Your task to perform on an android device: delete the emails in spam in the gmail app Image 0: 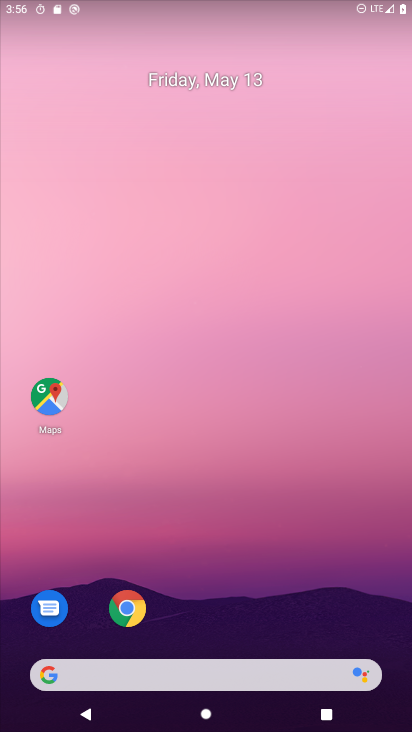
Step 0: drag from (253, 619) to (228, 160)
Your task to perform on an android device: delete the emails in spam in the gmail app Image 1: 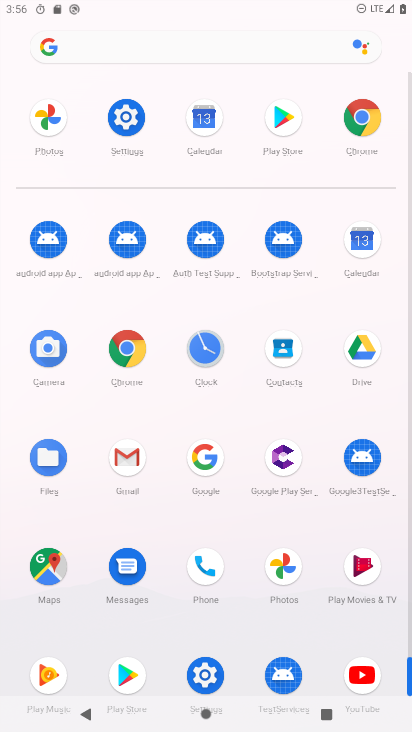
Step 1: click (129, 457)
Your task to perform on an android device: delete the emails in spam in the gmail app Image 2: 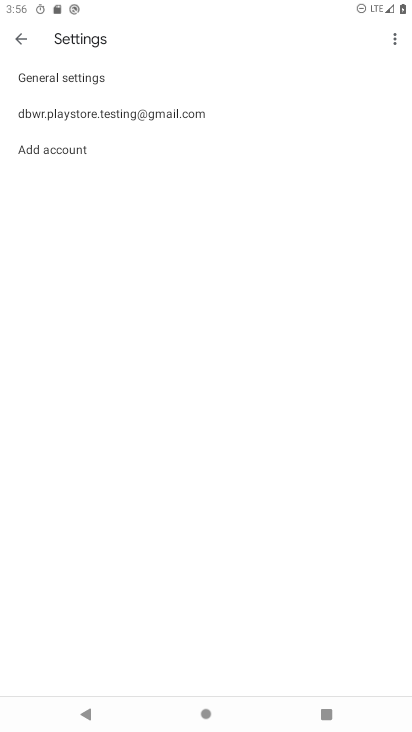
Step 2: click (13, 37)
Your task to perform on an android device: delete the emails in spam in the gmail app Image 3: 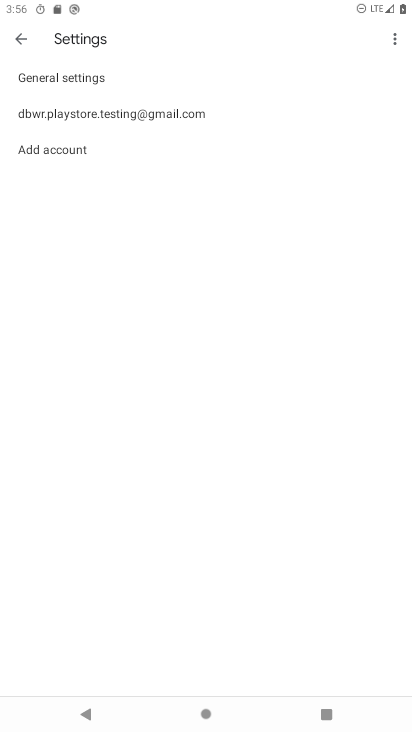
Step 3: click (19, 37)
Your task to perform on an android device: delete the emails in spam in the gmail app Image 4: 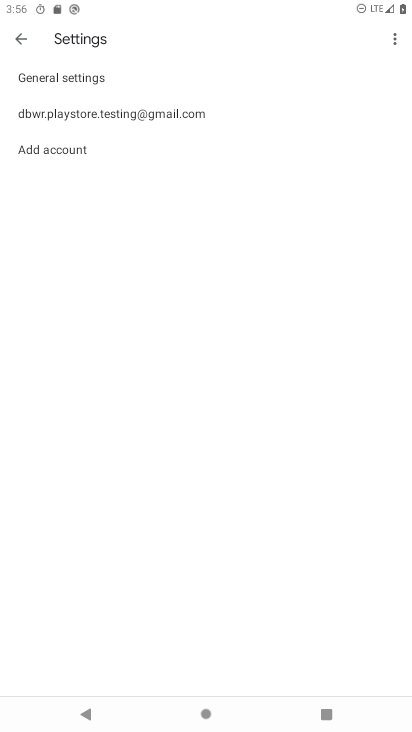
Step 4: press back button
Your task to perform on an android device: delete the emails in spam in the gmail app Image 5: 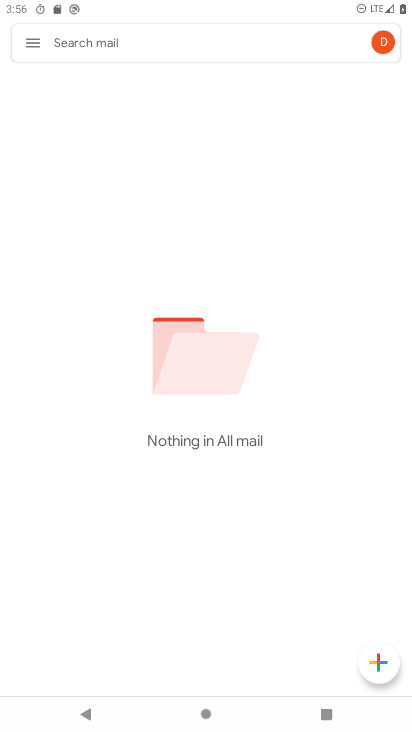
Step 5: click (38, 45)
Your task to perform on an android device: delete the emails in spam in the gmail app Image 6: 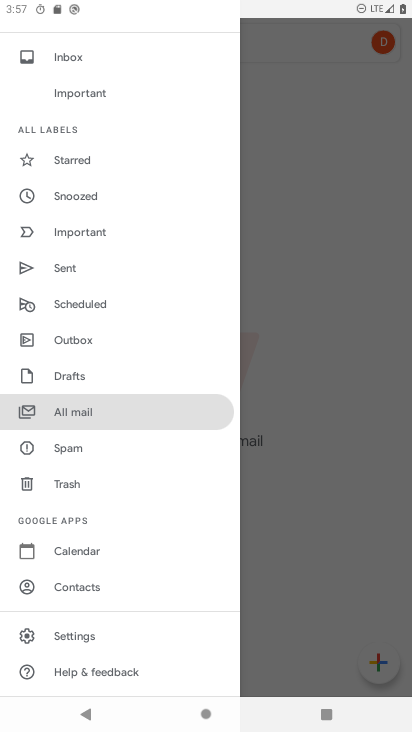
Step 6: click (64, 440)
Your task to perform on an android device: delete the emails in spam in the gmail app Image 7: 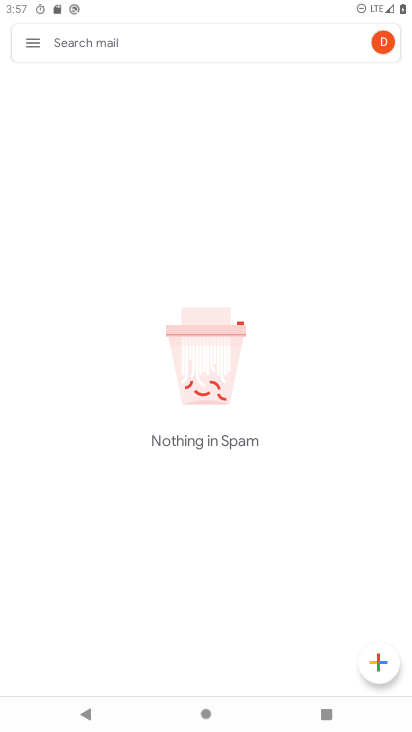
Step 7: task complete